Your task to perform on an android device: What's on my calendar tomorrow? Image 0: 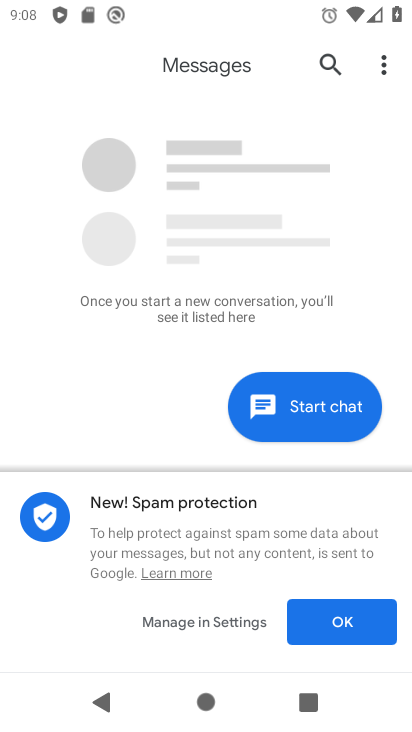
Step 0: press home button
Your task to perform on an android device: What's on my calendar tomorrow? Image 1: 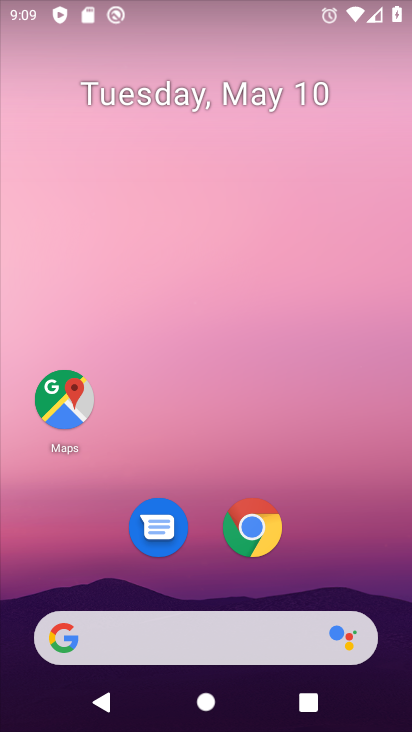
Step 1: drag from (212, 589) to (145, 52)
Your task to perform on an android device: What's on my calendar tomorrow? Image 2: 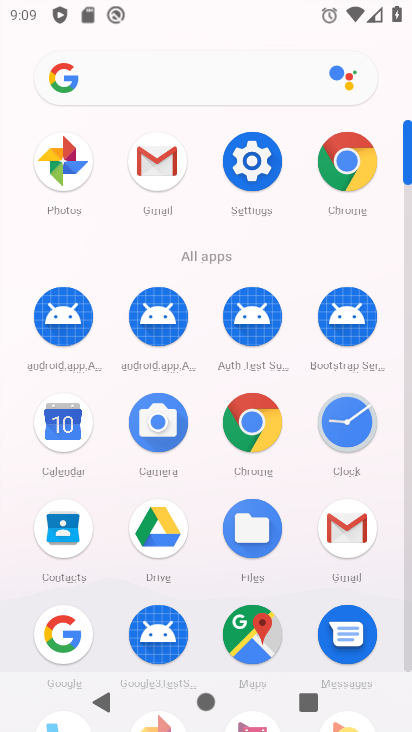
Step 2: click (54, 430)
Your task to perform on an android device: What's on my calendar tomorrow? Image 3: 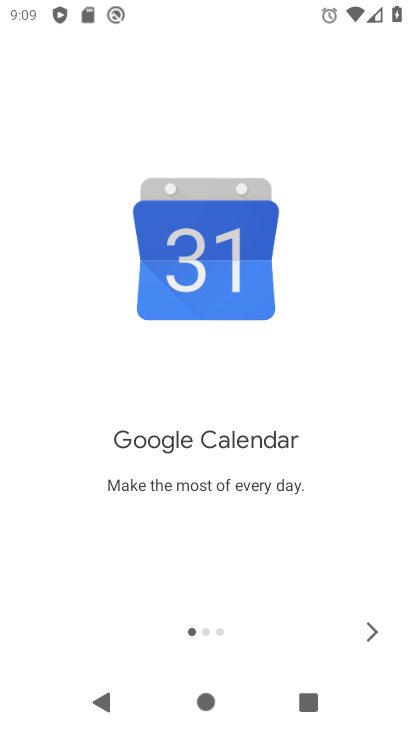
Step 3: click (363, 641)
Your task to perform on an android device: What's on my calendar tomorrow? Image 4: 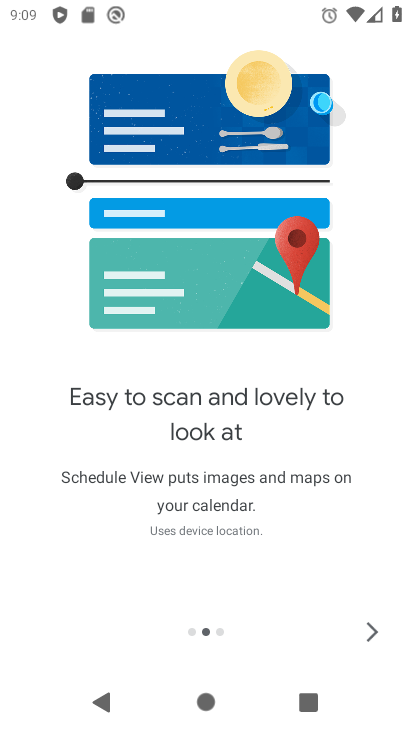
Step 4: click (363, 641)
Your task to perform on an android device: What's on my calendar tomorrow? Image 5: 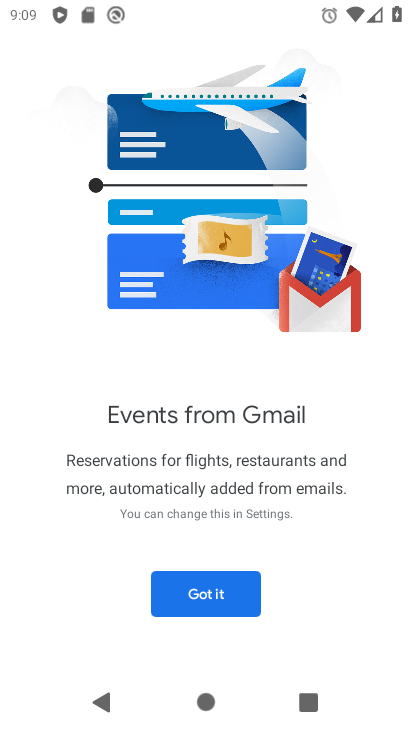
Step 5: click (201, 586)
Your task to perform on an android device: What's on my calendar tomorrow? Image 6: 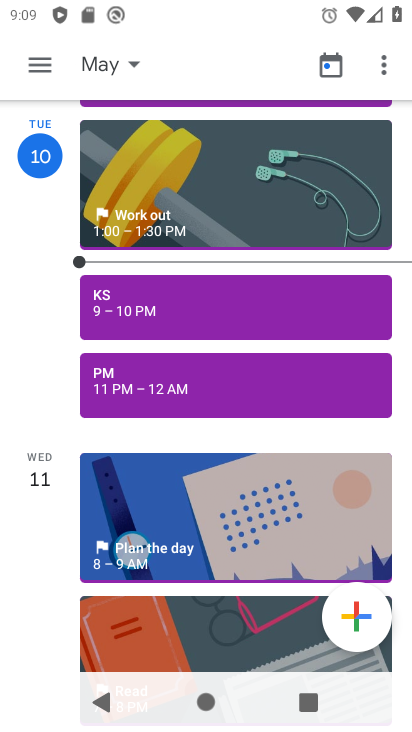
Step 6: click (44, 451)
Your task to perform on an android device: What's on my calendar tomorrow? Image 7: 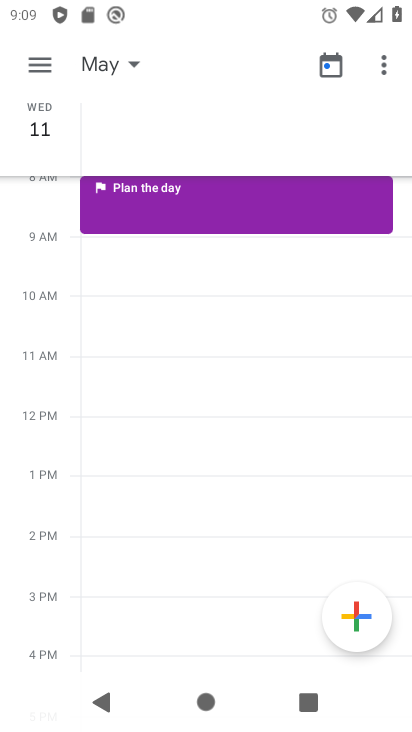
Step 7: task complete